Your task to perform on an android device: Check the weather Image 0: 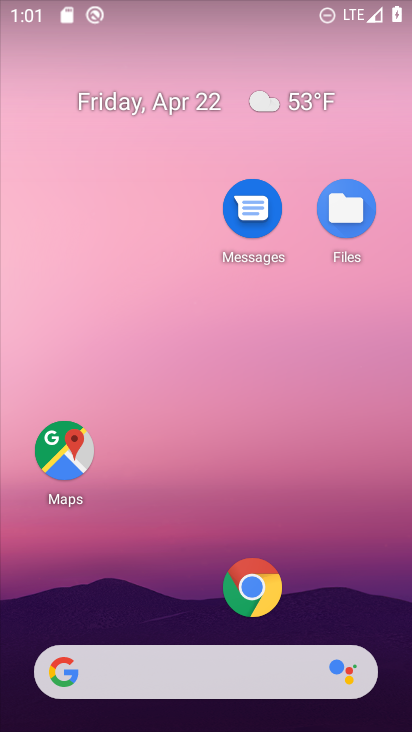
Step 0: drag from (133, 588) to (172, 196)
Your task to perform on an android device: Check the weather Image 1: 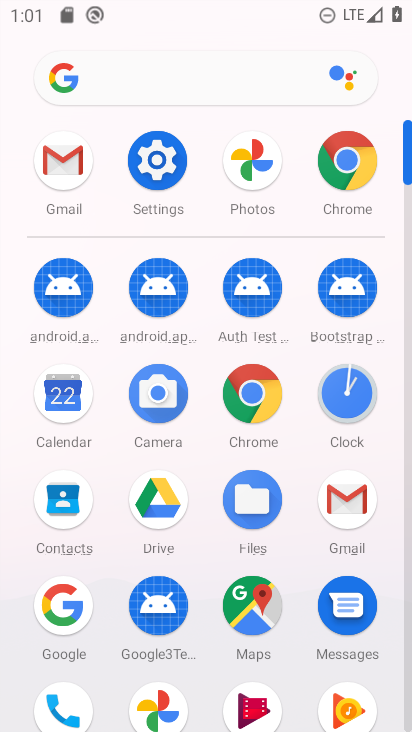
Step 1: click (248, 386)
Your task to perform on an android device: Check the weather Image 2: 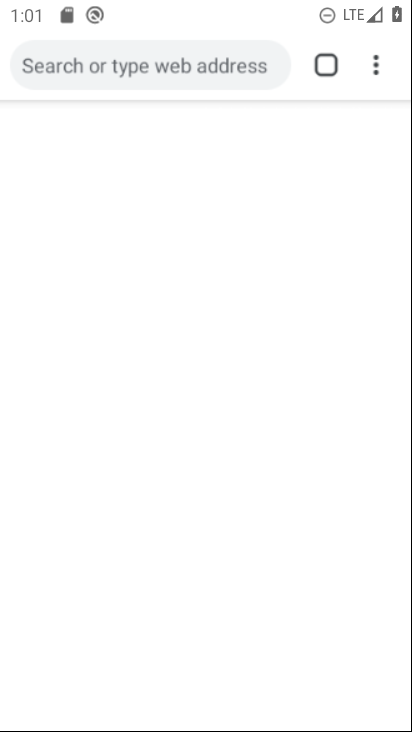
Step 2: click (141, 78)
Your task to perform on an android device: Check the weather Image 3: 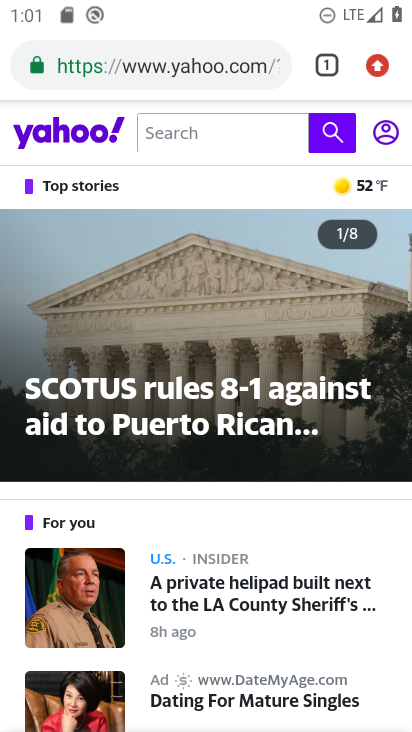
Step 3: type "weather"
Your task to perform on an android device: Check the weather Image 4: 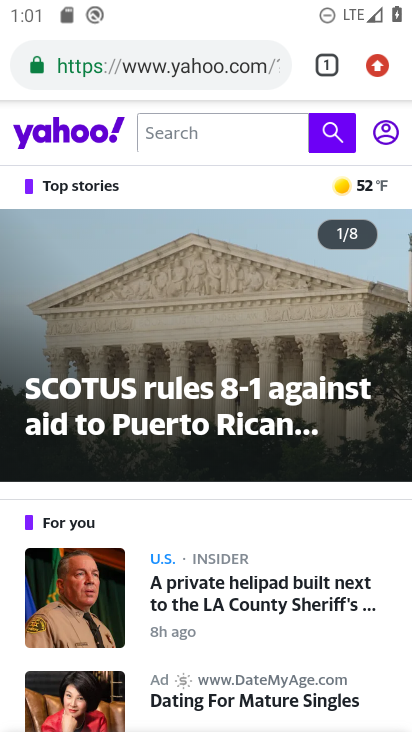
Step 4: click (161, 64)
Your task to perform on an android device: Check the weather Image 5: 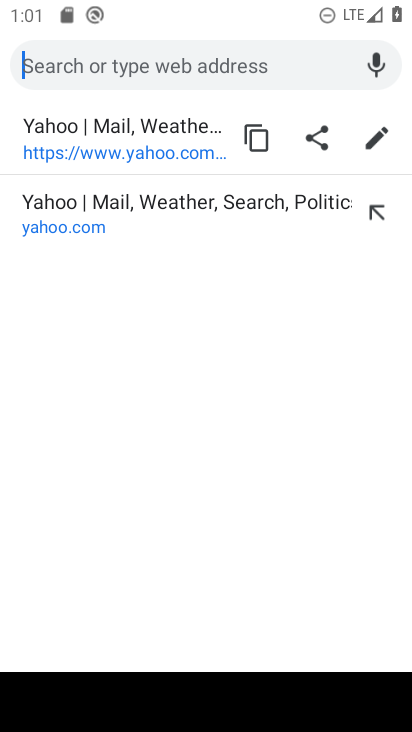
Step 5: type "weather"
Your task to perform on an android device: Check the weather Image 6: 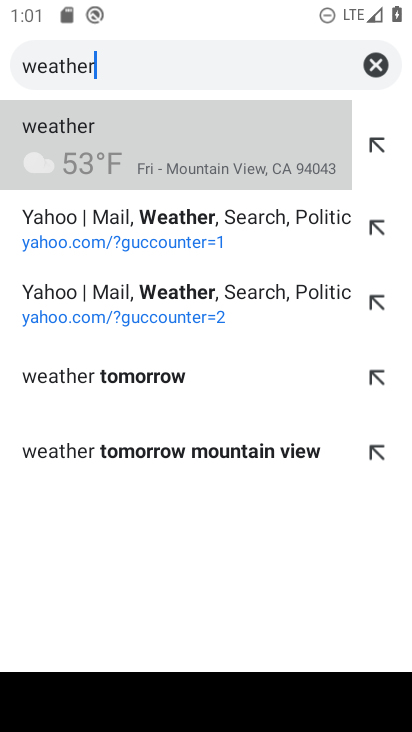
Step 6: click (223, 162)
Your task to perform on an android device: Check the weather Image 7: 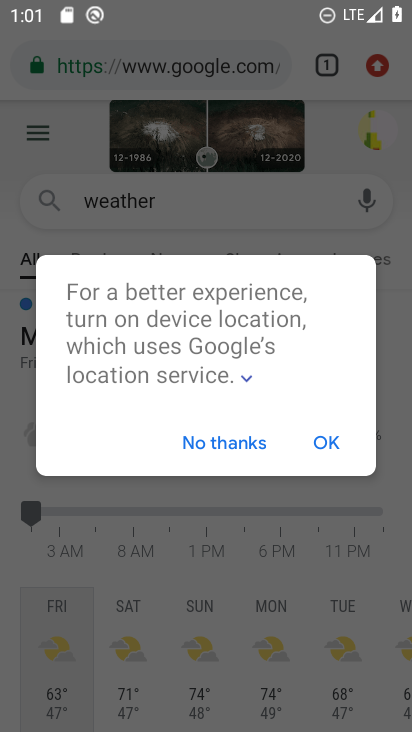
Step 7: task complete